Your task to perform on an android device: Open CNN.com Image 0: 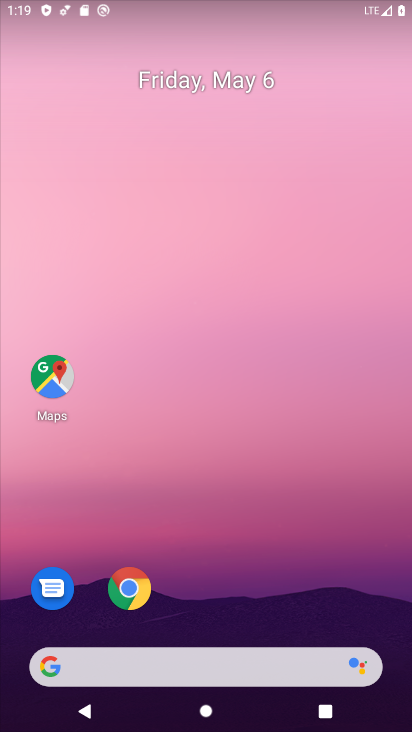
Step 0: drag from (356, 606) to (349, 156)
Your task to perform on an android device: Open CNN.com Image 1: 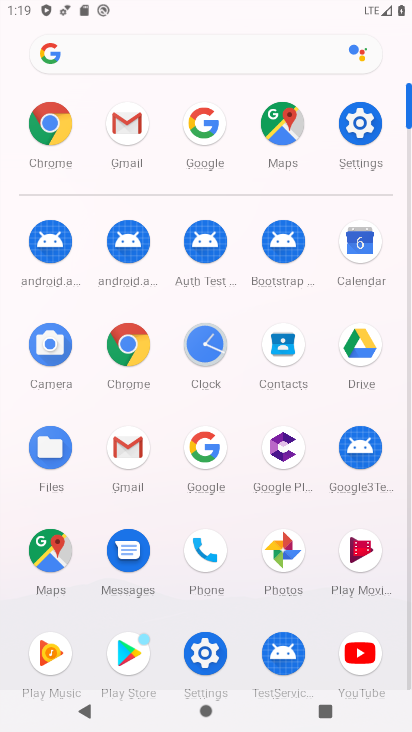
Step 1: click (130, 351)
Your task to perform on an android device: Open CNN.com Image 2: 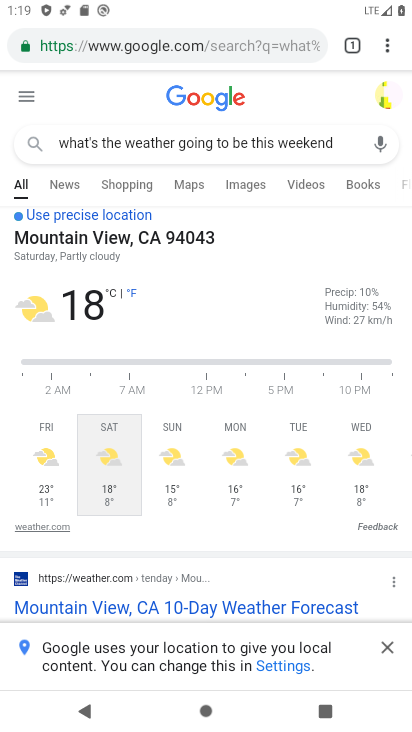
Step 2: click (160, 35)
Your task to perform on an android device: Open CNN.com Image 3: 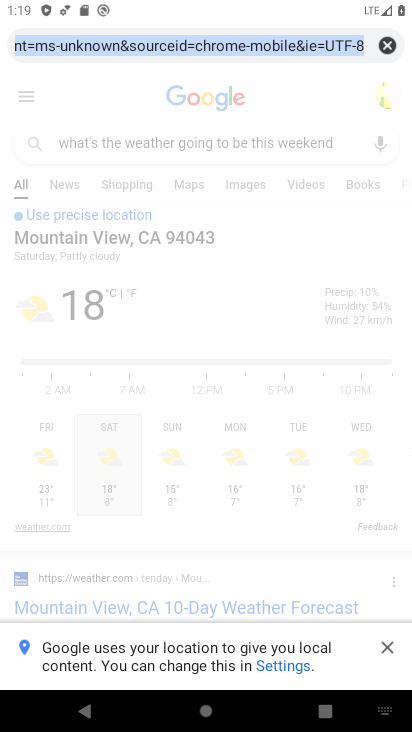
Step 3: click (392, 40)
Your task to perform on an android device: Open CNN.com Image 4: 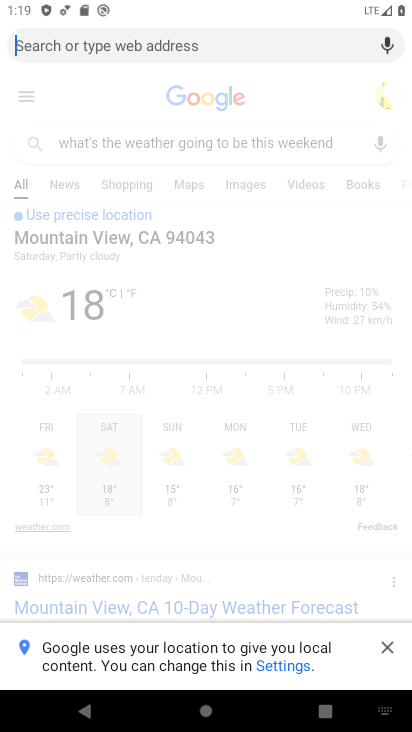
Step 4: type "cnn.com"
Your task to perform on an android device: Open CNN.com Image 5: 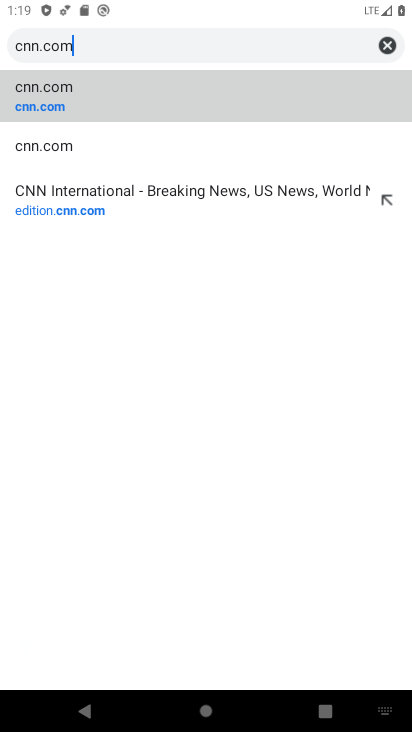
Step 5: click (21, 101)
Your task to perform on an android device: Open CNN.com Image 6: 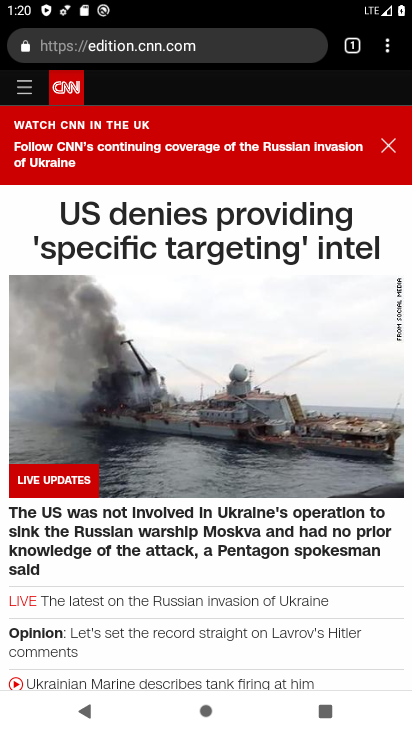
Step 6: task complete